Your task to perform on an android device: open wifi settings Image 0: 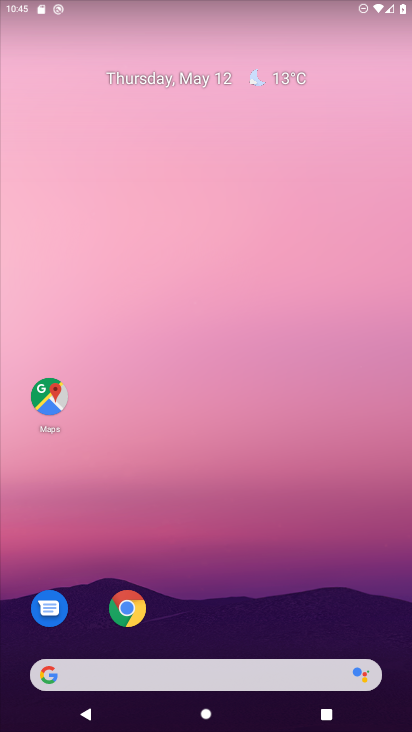
Step 0: drag from (239, 600) to (200, 100)
Your task to perform on an android device: open wifi settings Image 1: 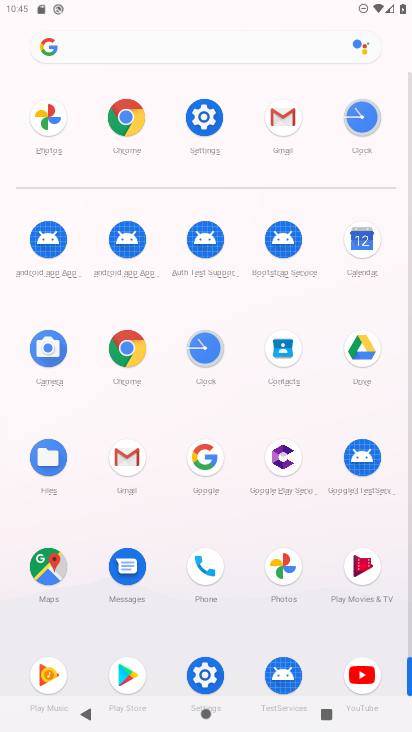
Step 1: click (199, 119)
Your task to perform on an android device: open wifi settings Image 2: 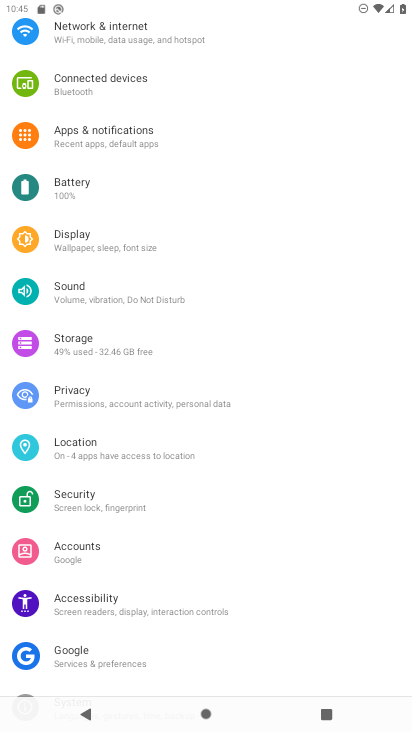
Step 2: drag from (148, 83) to (225, 375)
Your task to perform on an android device: open wifi settings Image 3: 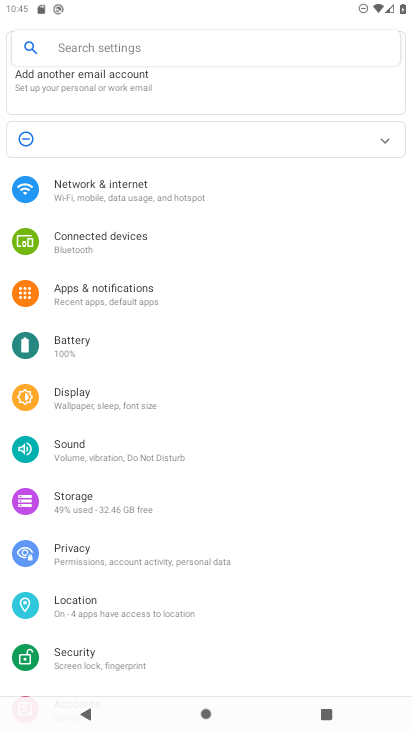
Step 3: click (136, 201)
Your task to perform on an android device: open wifi settings Image 4: 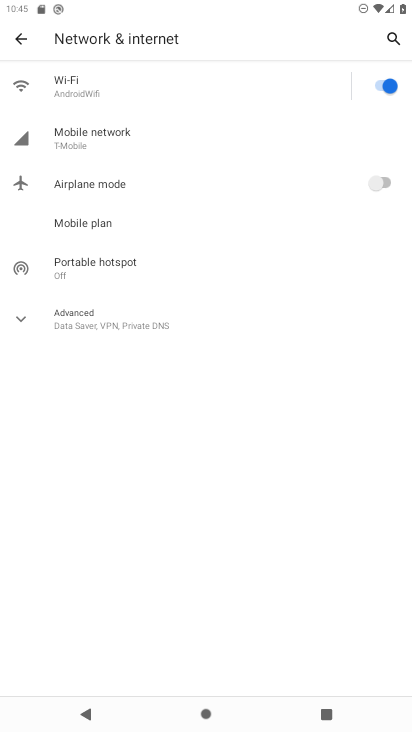
Step 4: click (100, 87)
Your task to perform on an android device: open wifi settings Image 5: 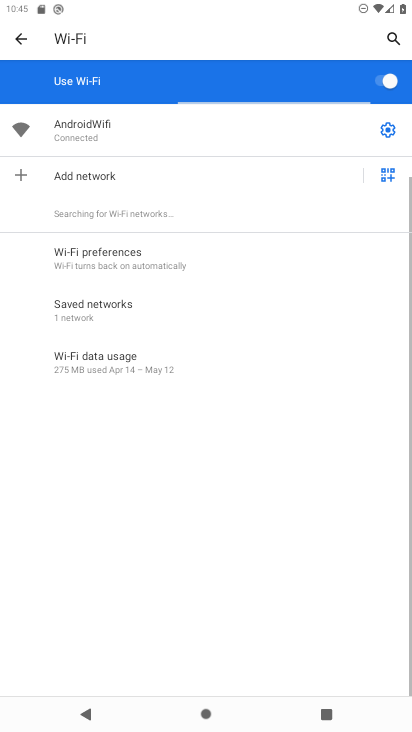
Step 5: click (376, 132)
Your task to perform on an android device: open wifi settings Image 6: 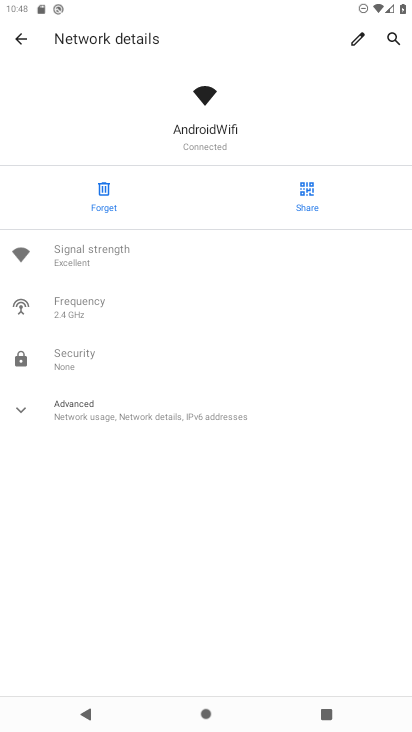
Step 6: task complete